Your task to perform on an android device: open chrome and create a bookmark for the current page Image 0: 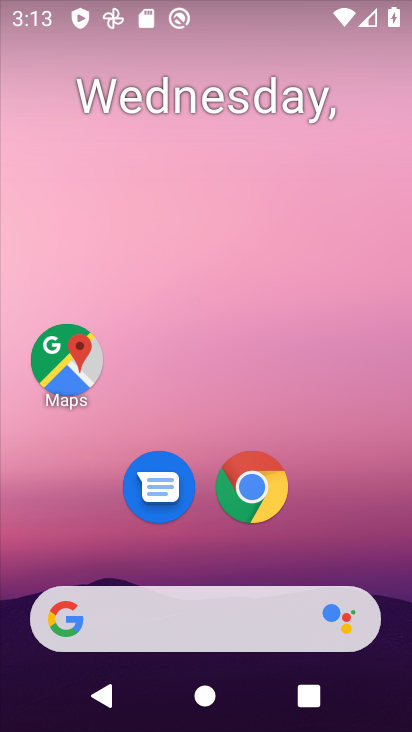
Step 0: drag from (384, 533) to (370, 153)
Your task to perform on an android device: open chrome and create a bookmark for the current page Image 1: 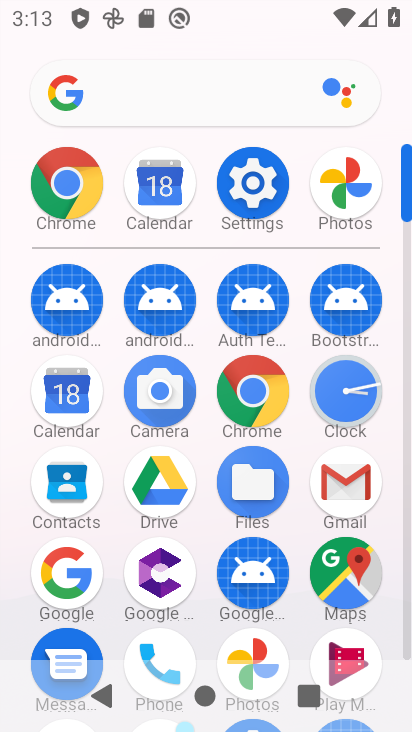
Step 1: click (270, 401)
Your task to perform on an android device: open chrome and create a bookmark for the current page Image 2: 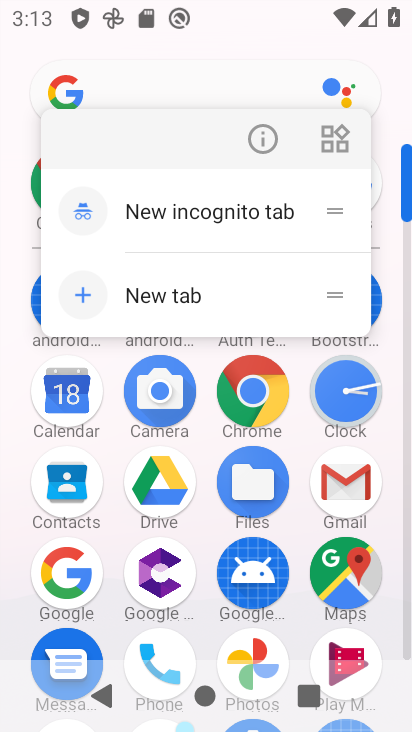
Step 2: click (267, 381)
Your task to perform on an android device: open chrome and create a bookmark for the current page Image 3: 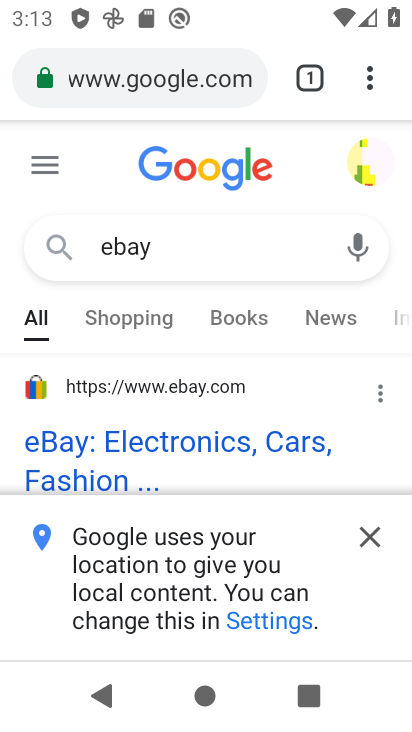
Step 3: click (369, 84)
Your task to perform on an android device: open chrome and create a bookmark for the current page Image 4: 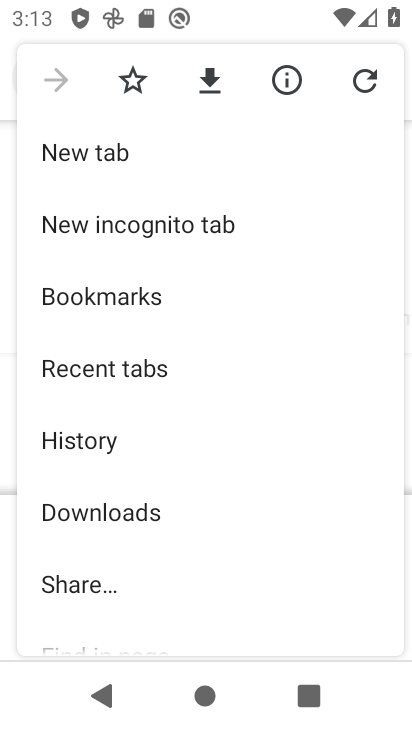
Step 4: click (128, 90)
Your task to perform on an android device: open chrome and create a bookmark for the current page Image 5: 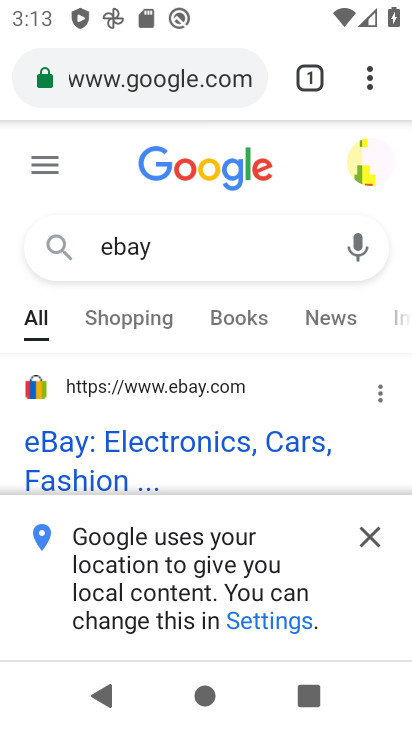
Step 5: task complete